Your task to perform on an android device: Open sound settings Image 0: 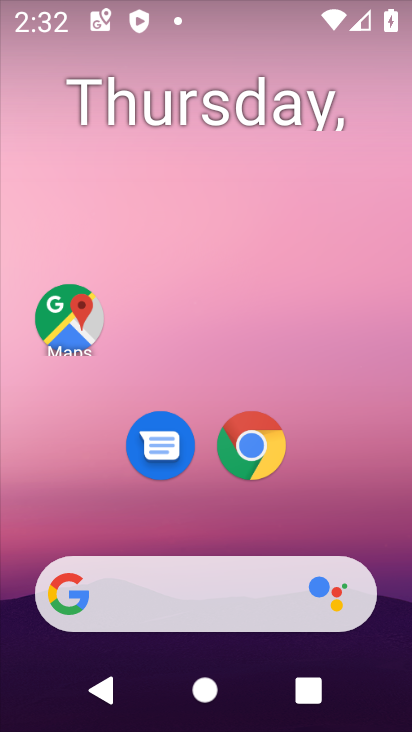
Step 0: drag from (24, 567) to (269, 146)
Your task to perform on an android device: Open sound settings Image 1: 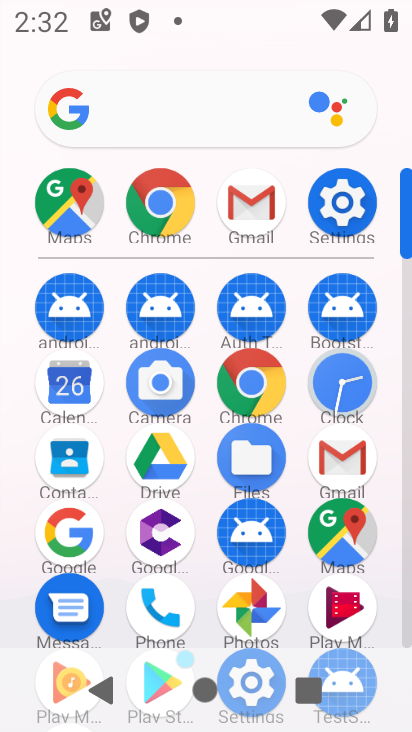
Step 1: drag from (49, 508) to (179, 283)
Your task to perform on an android device: Open sound settings Image 2: 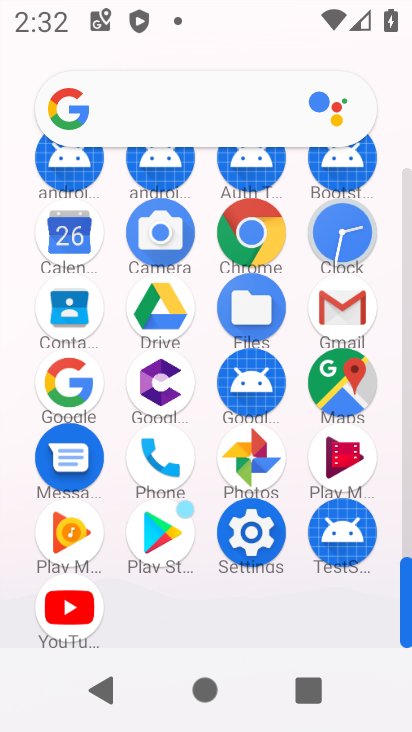
Step 2: click (261, 533)
Your task to perform on an android device: Open sound settings Image 3: 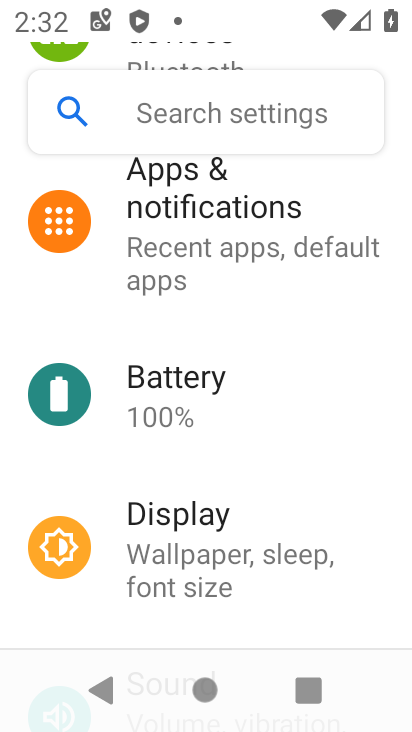
Step 3: drag from (245, 183) to (237, 589)
Your task to perform on an android device: Open sound settings Image 4: 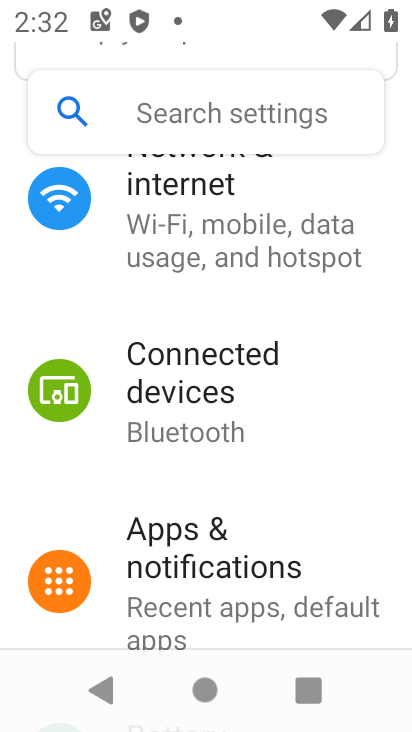
Step 4: drag from (174, 175) to (173, 513)
Your task to perform on an android device: Open sound settings Image 5: 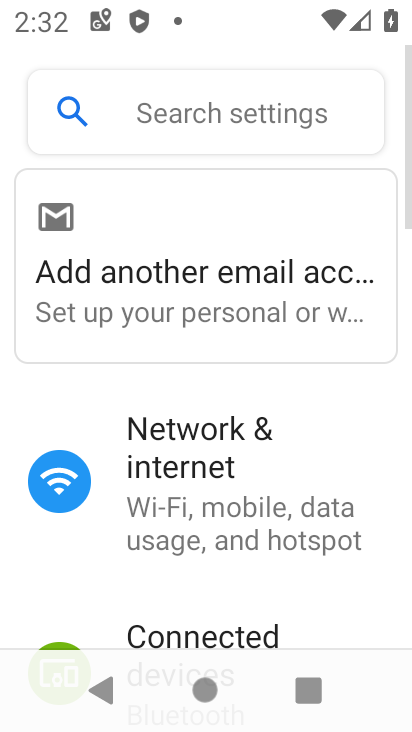
Step 5: drag from (91, 603) to (302, 133)
Your task to perform on an android device: Open sound settings Image 6: 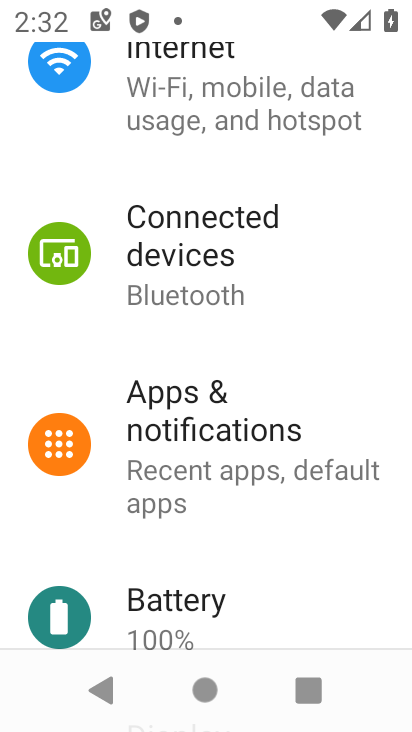
Step 6: drag from (134, 518) to (337, 121)
Your task to perform on an android device: Open sound settings Image 7: 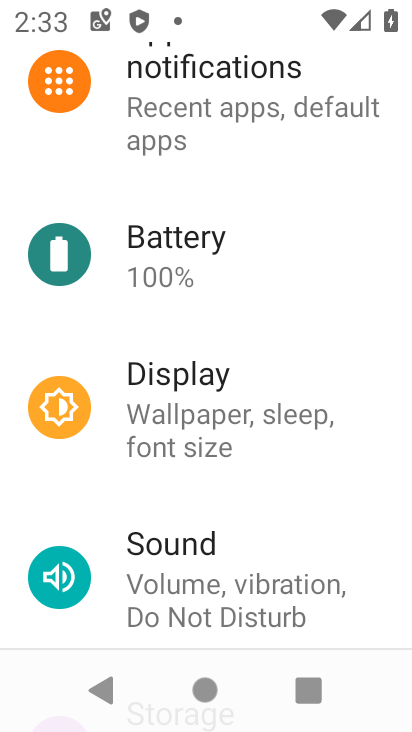
Step 7: drag from (148, 616) to (260, 342)
Your task to perform on an android device: Open sound settings Image 8: 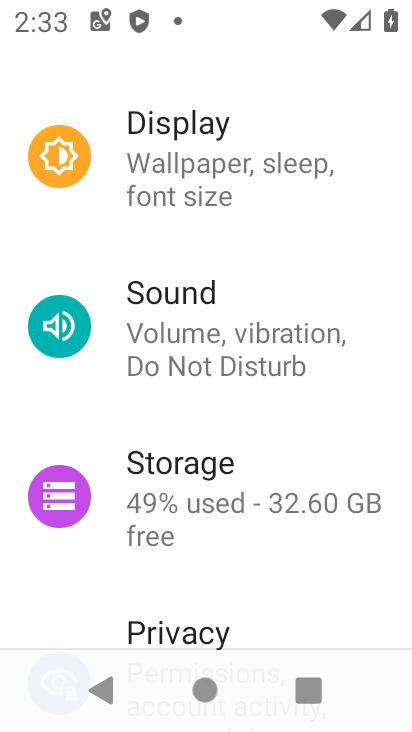
Step 8: click (156, 327)
Your task to perform on an android device: Open sound settings Image 9: 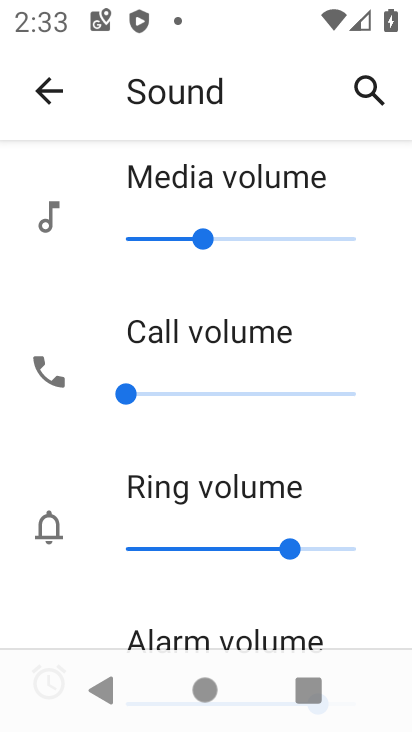
Step 9: task complete